Your task to perform on an android device: Open display settings Image 0: 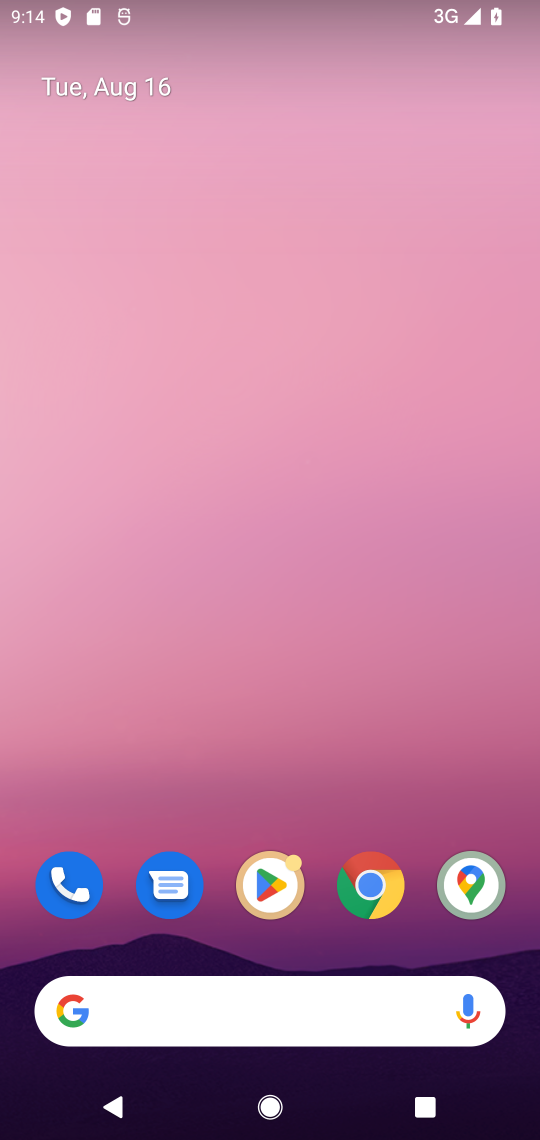
Step 0: drag from (290, 163) to (281, 24)
Your task to perform on an android device: Open display settings Image 1: 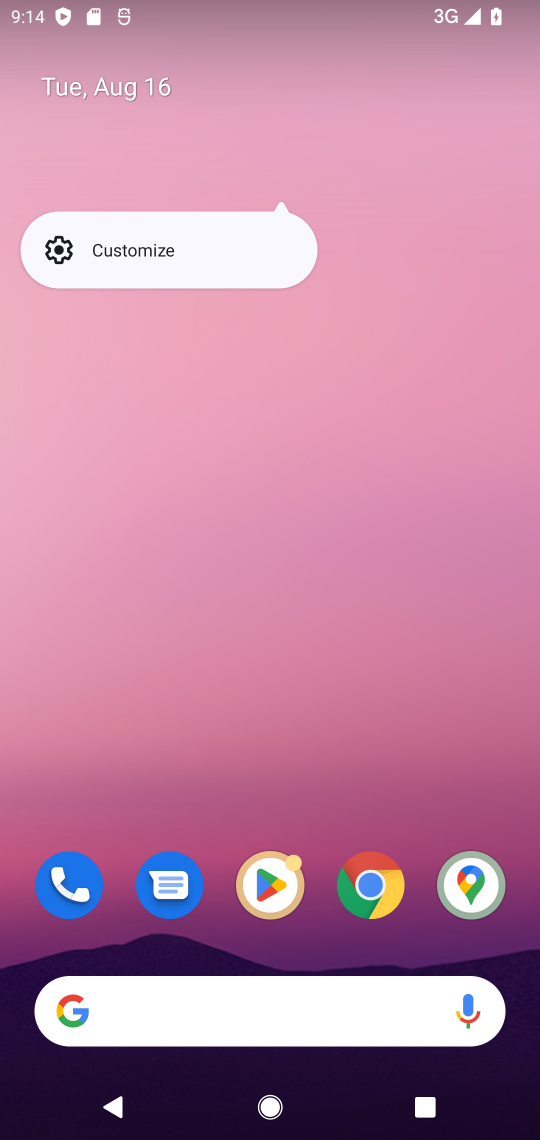
Step 1: drag from (219, 836) to (127, 92)
Your task to perform on an android device: Open display settings Image 2: 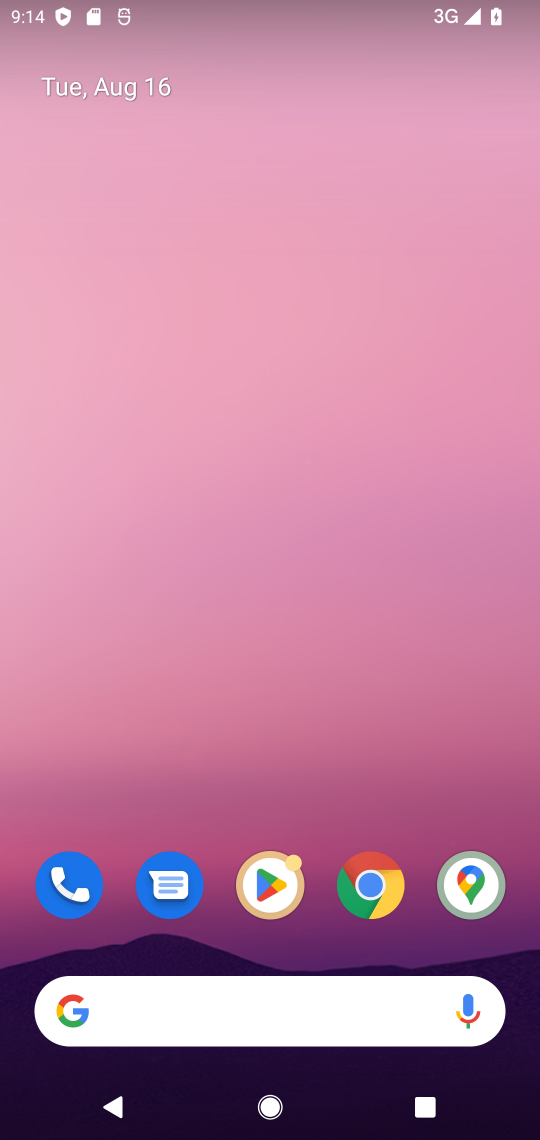
Step 2: drag from (281, 920) to (280, 79)
Your task to perform on an android device: Open display settings Image 3: 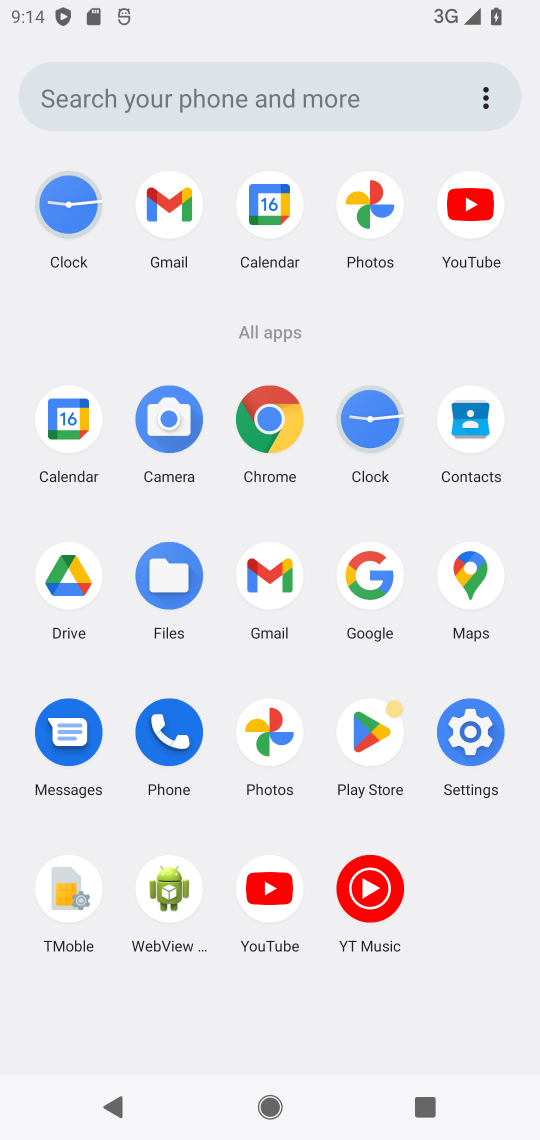
Step 3: click (464, 722)
Your task to perform on an android device: Open display settings Image 4: 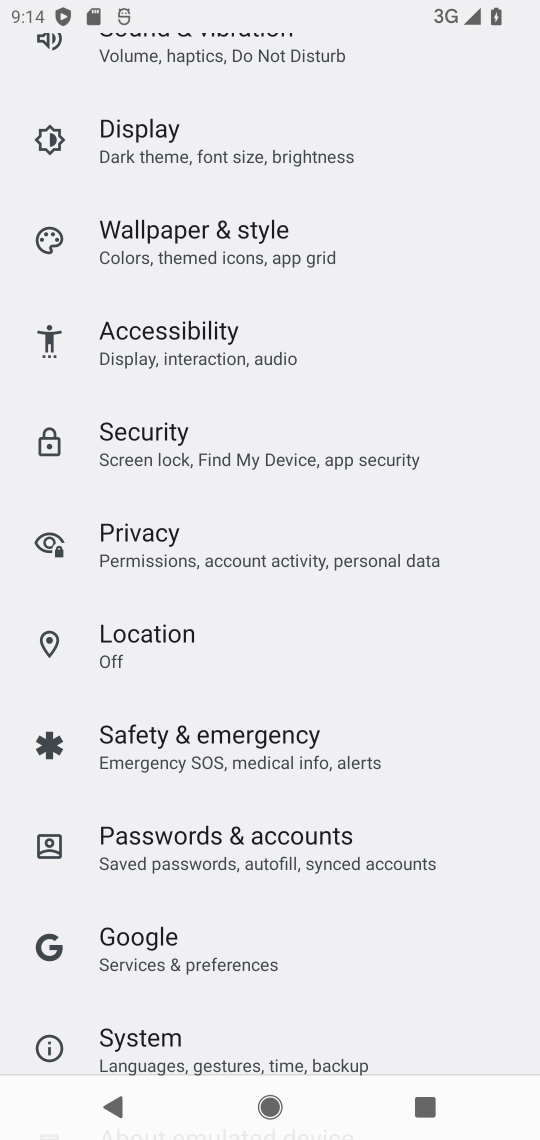
Step 4: click (135, 118)
Your task to perform on an android device: Open display settings Image 5: 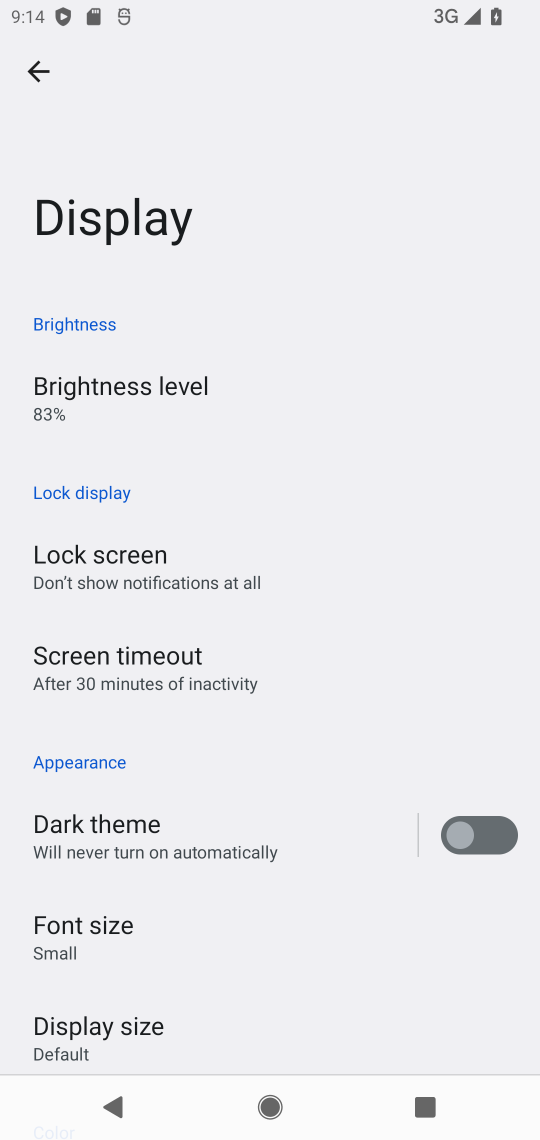
Step 5: task complete